Your task to perform on an android device: What is the recent news? Image 0: 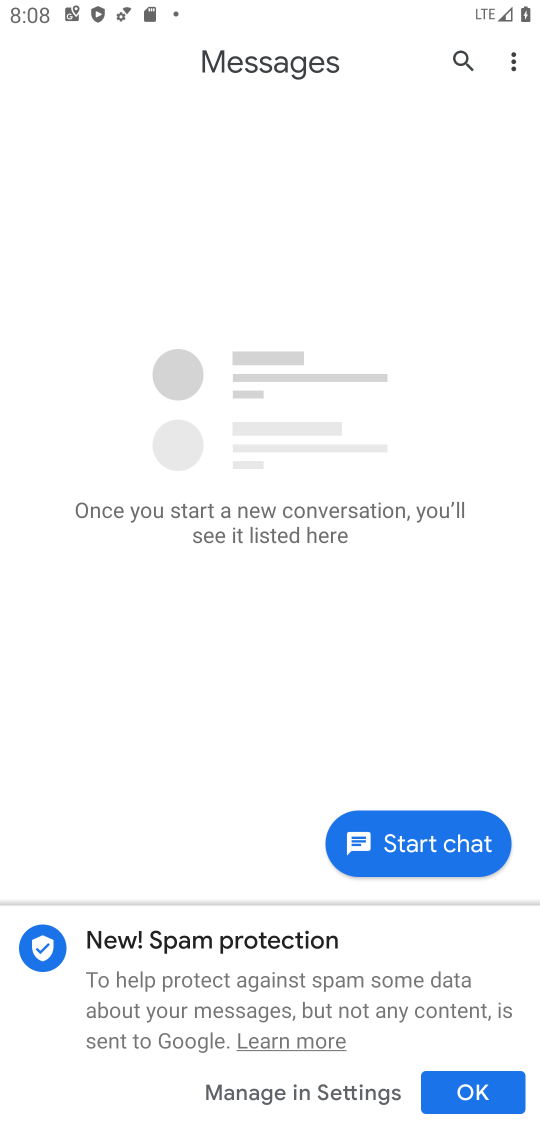
Step 0: press home button
Your task to perform on an android device: What is the recent news? Image 1: 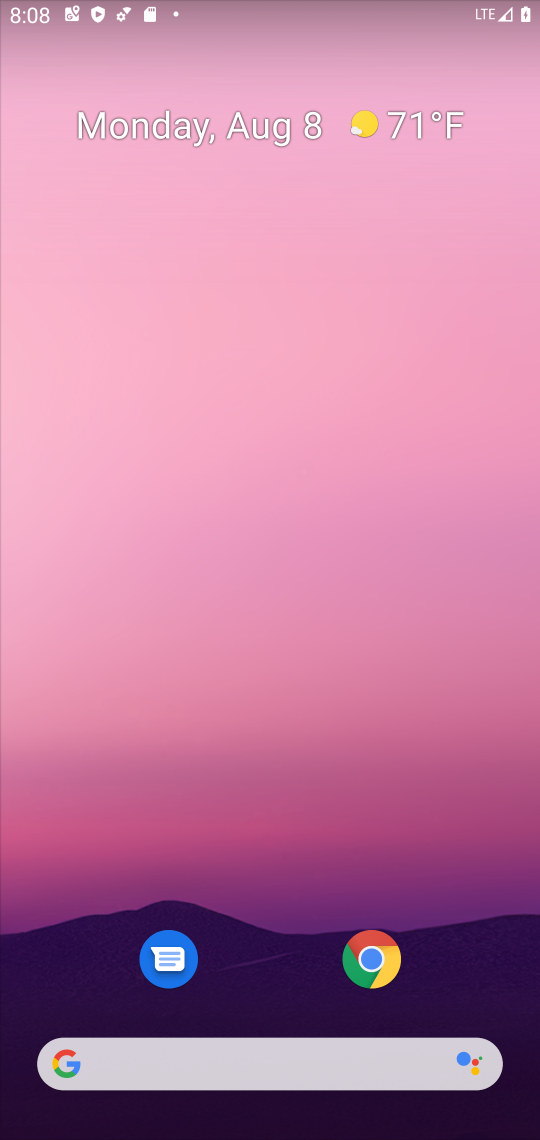
Step 1: drag from (479, 845) to (340, 28)
Your task to perform on an android device: What is the recent news? Image 2: 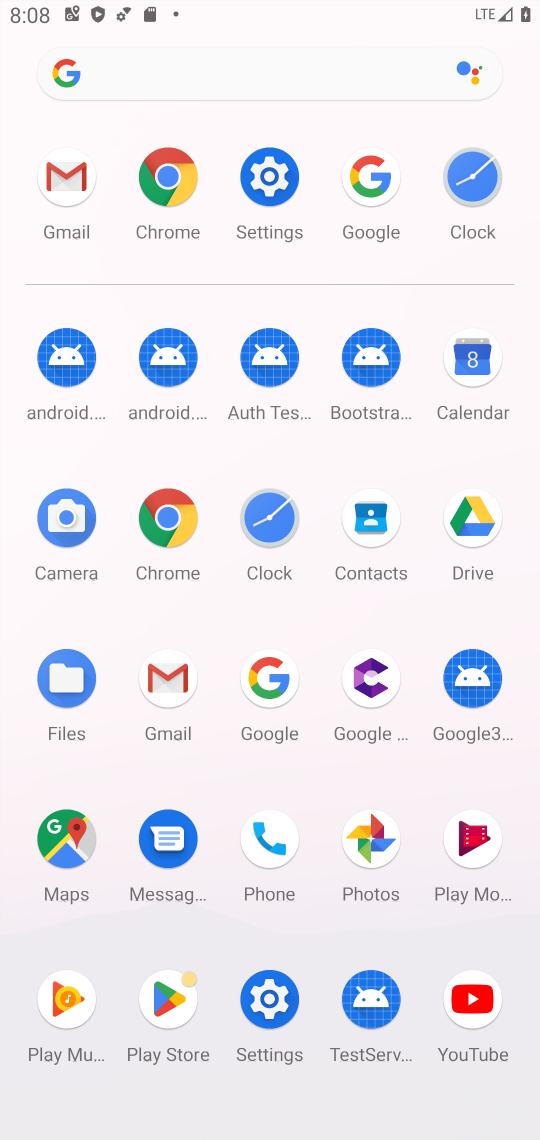
Step 2: click (366, 834)
Your task to perform on an android device: What is the recent news? Image 3: 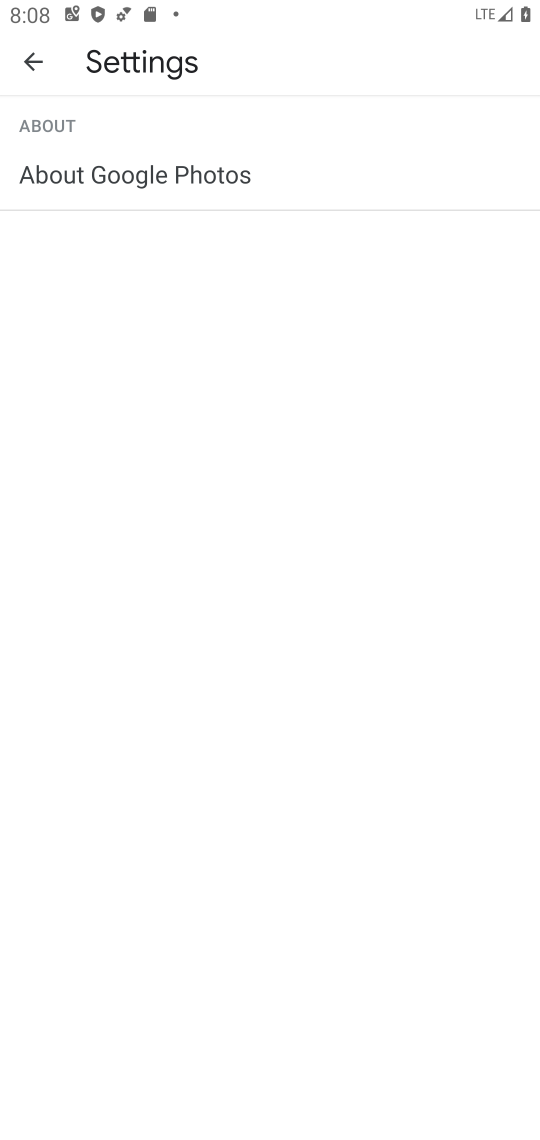
Step 3: press back button
Your task to perform on an android device: What is the recent news? Image 4: 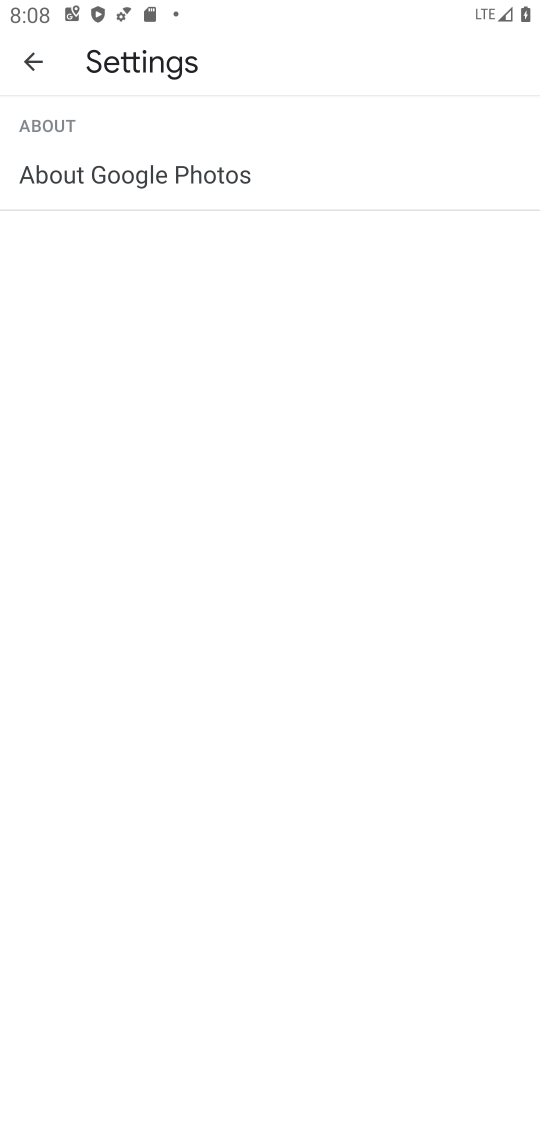
Step 4: press back button
Your task to perform on an android device: What is the recent news? Image 5: 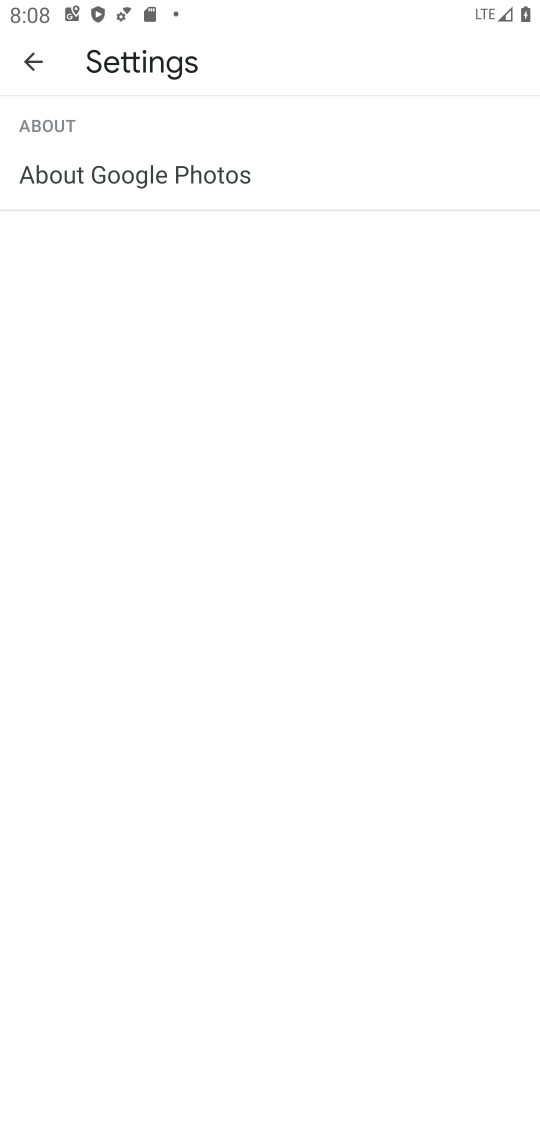
Step 5: press home button
Your task to perform on an android device: What is the recent news? Image 6: 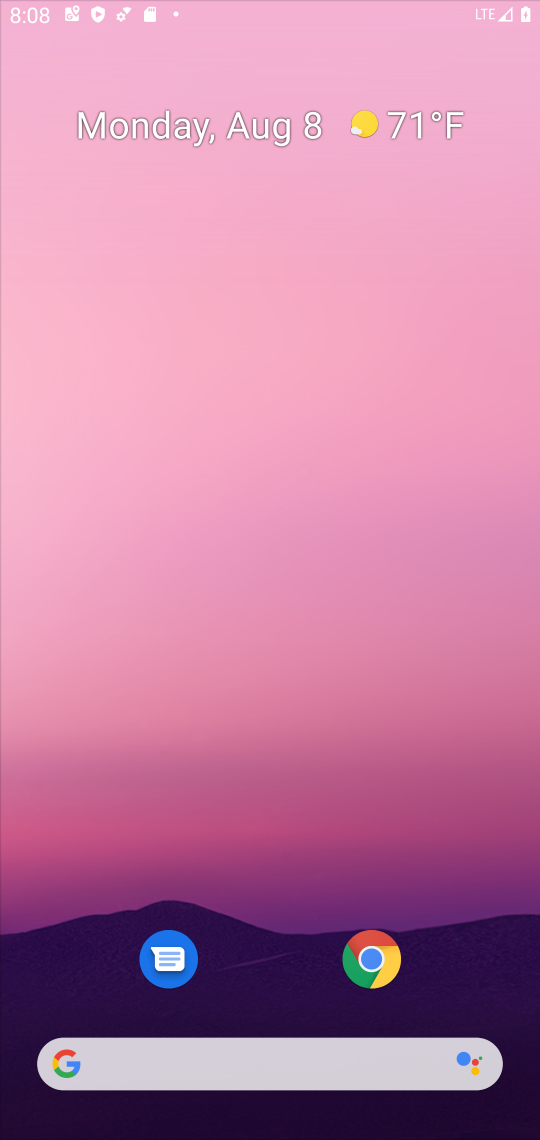
Step 6: drag from (485, 958) to (293, 31)
Your task to perform on an android device: What is the recent news? Image 7: 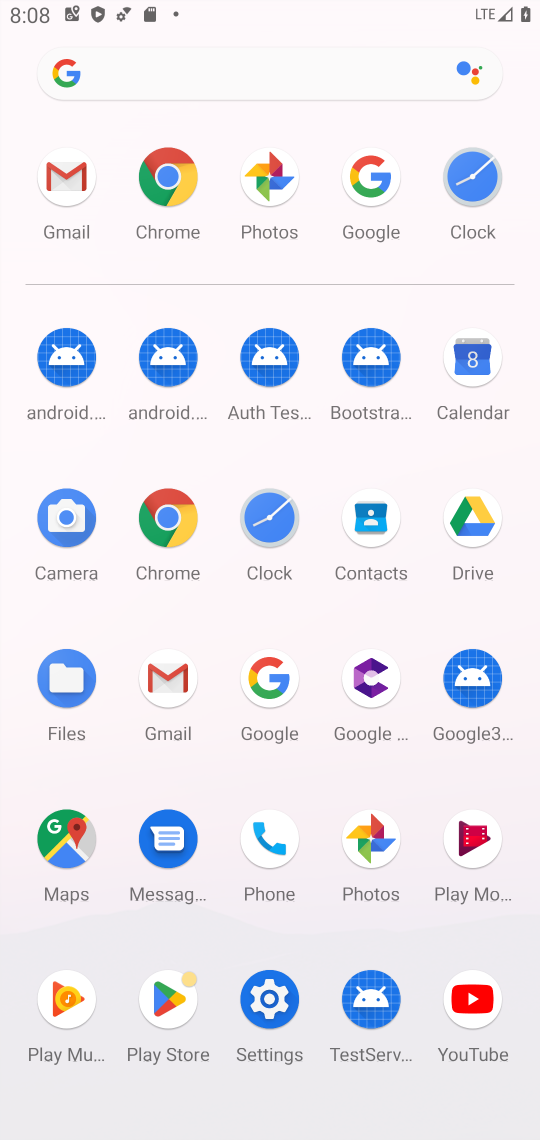
Step 7: click (267, 678)
Your task to perform on an android device: What is the recent news? Image 8: 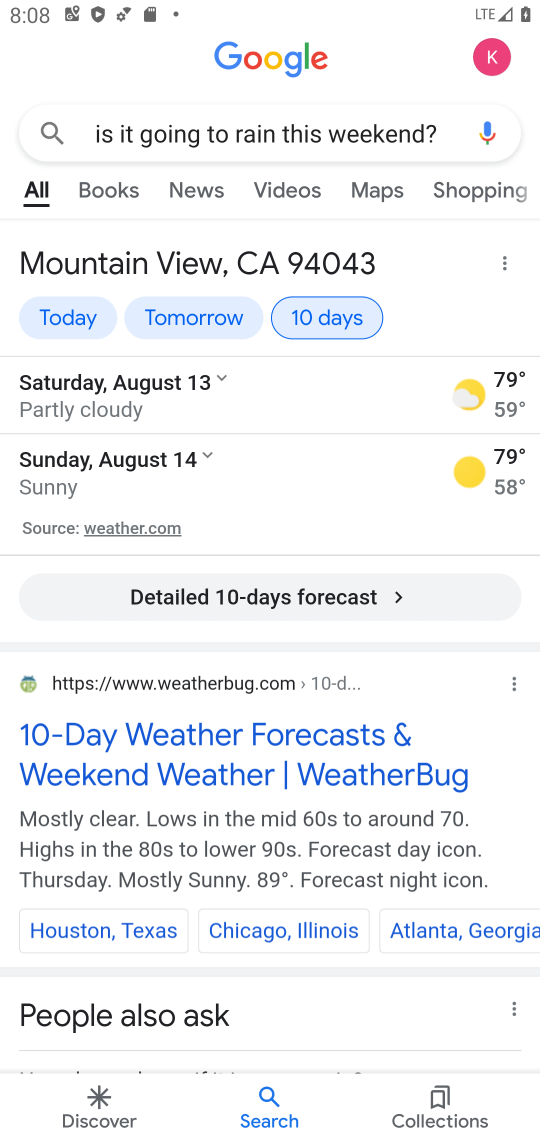
Step 8: press back button
Your task to perform on an android device: What is the recent news? Image 9: 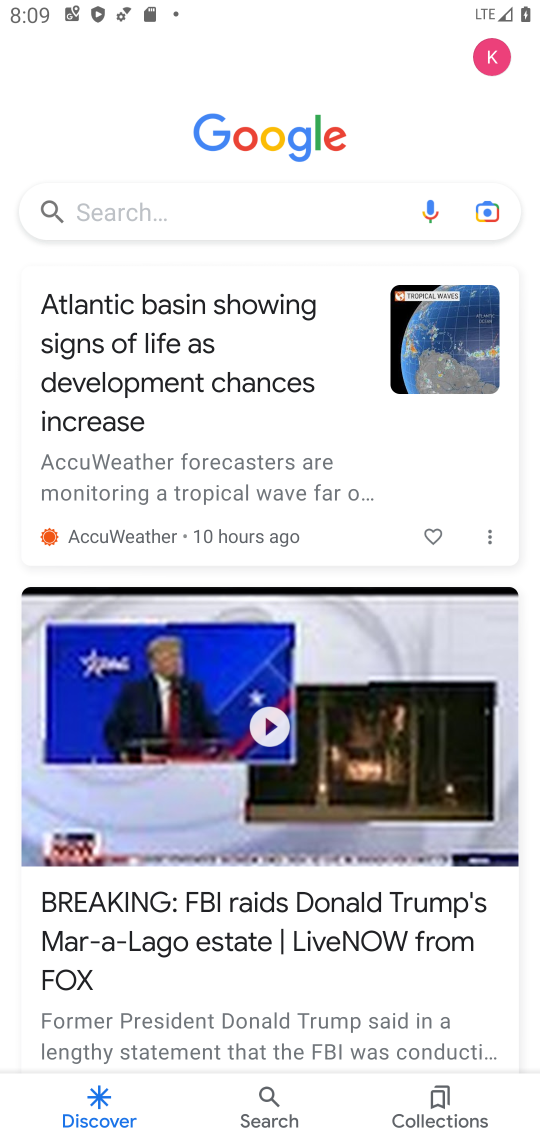
Step 9: click (156, 205)
Your task to perform on an android device: What is the recent news? Image 10: 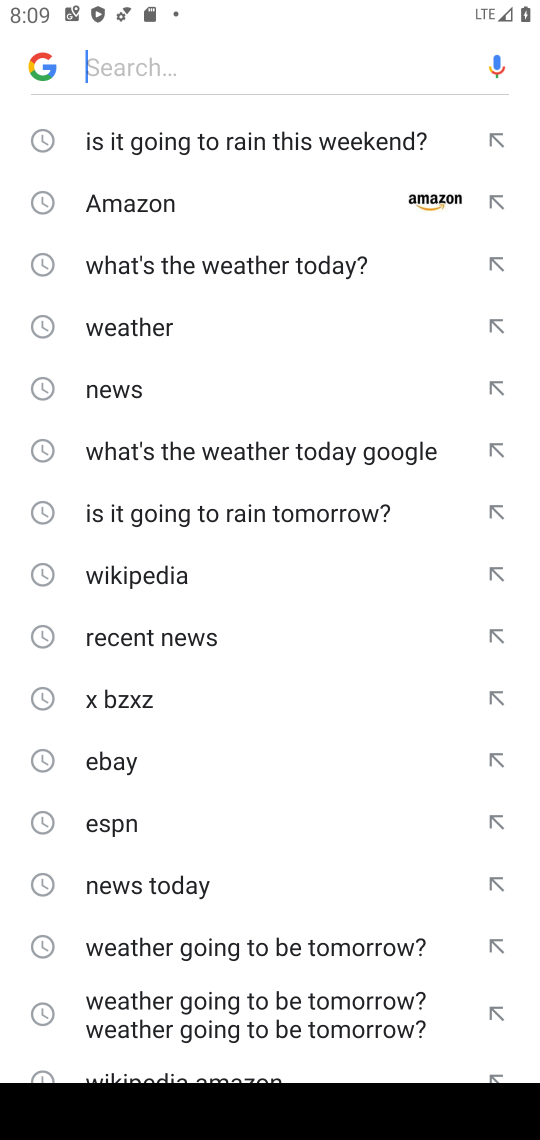
Step 10: click (209, 641)
Your task to perform on an android device: What is the recent news? Image 11: 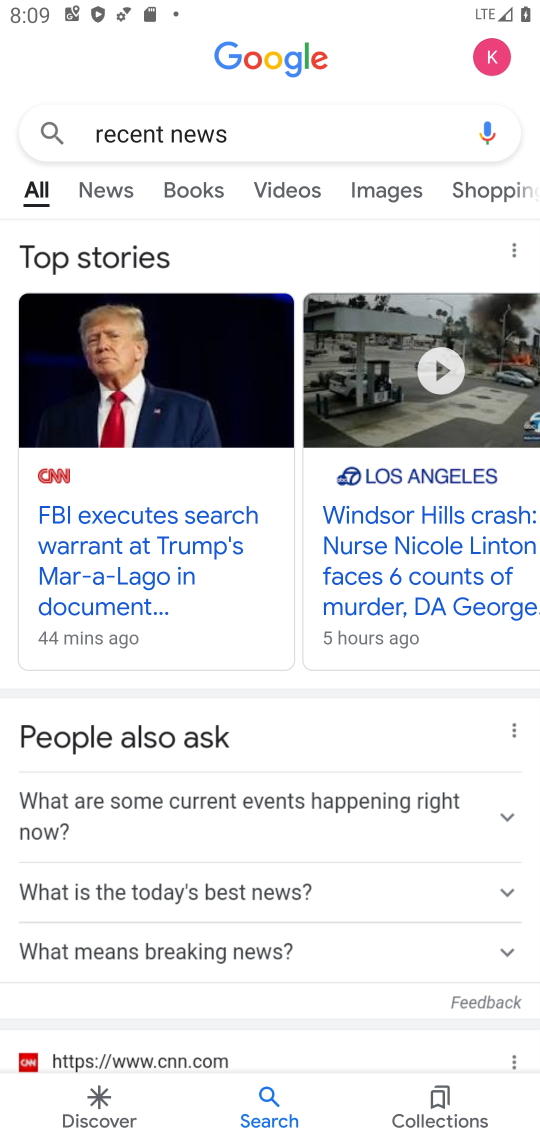
Step 11: task complete